Your task to perform on an android device: Go to location settings Image 0: 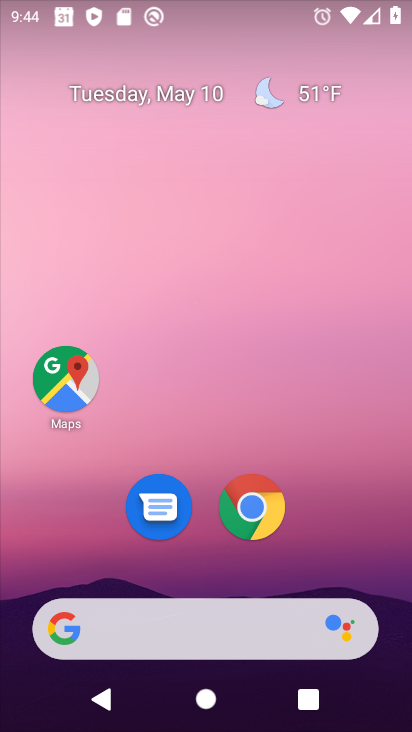
Step 0: click (60, 360)
Your task to perform on an android device: Go to location settings Image 1: 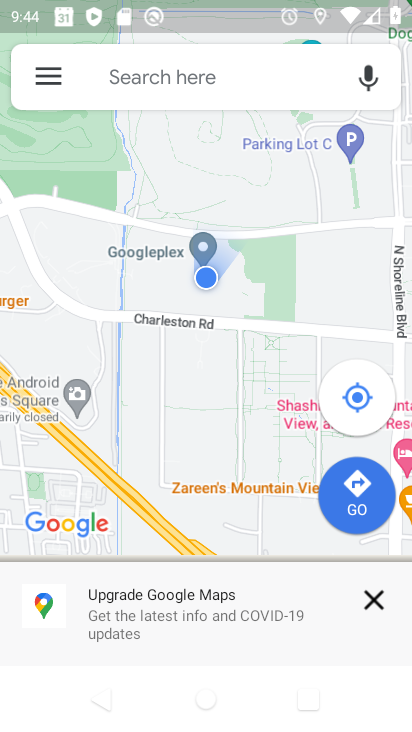
Step 1: click (57, 59)
Your task to perform on an android device: Go to location settings Image 2: 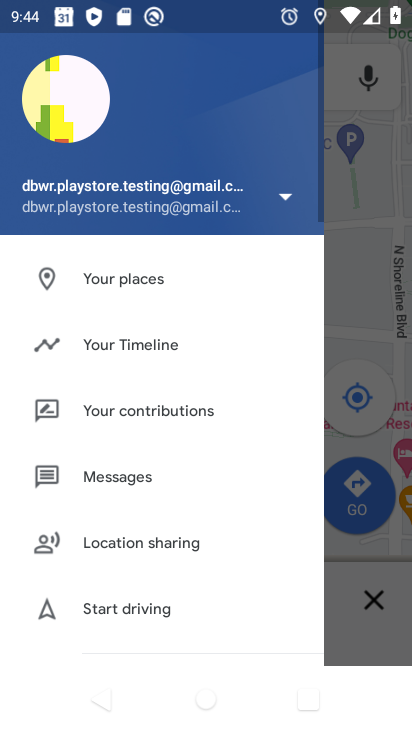
Step 2: drag from (102, 601) to (136, 185)
Your task to perform on an android device: Go to location settings Image 3: 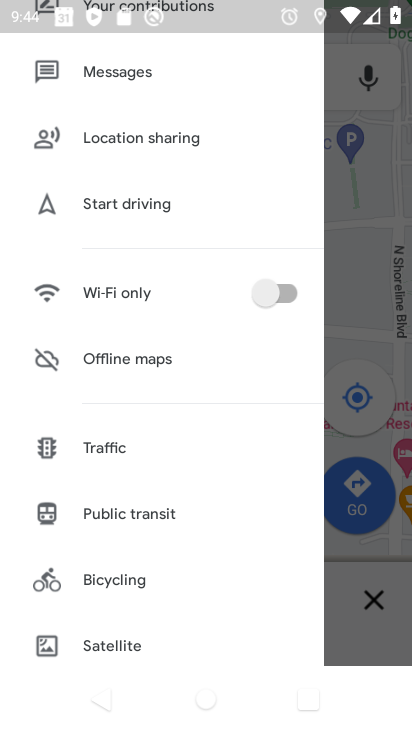
Step 3: drag from (122, 610) to (149, 165)
Your task to perform on an android device: Go to location settings Image 4: 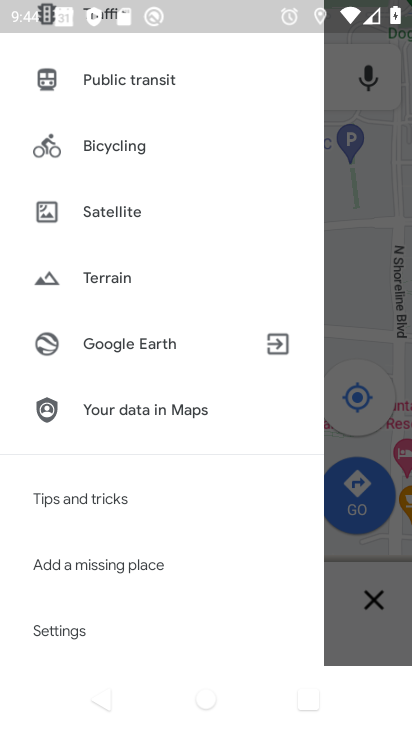
Step 4: click (68, 624)
Your task to perform on an android device: Go to location settings Image 5: 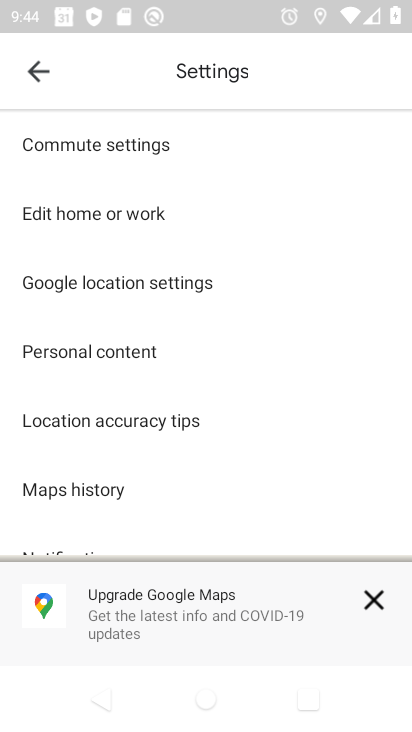
Step 5: task complete